Your task to perform on an android device: Is it going to rain today? Image 0: 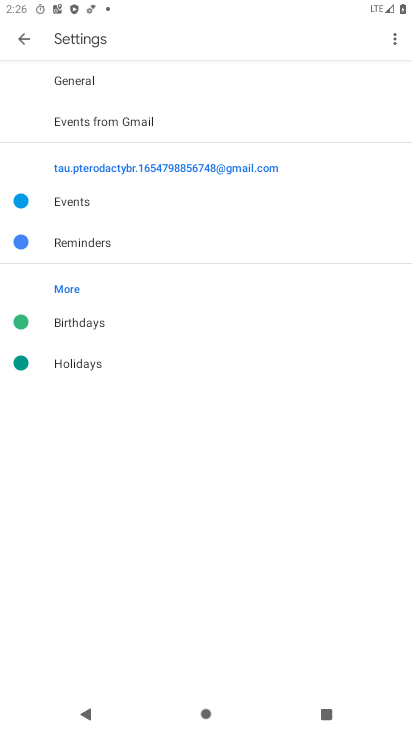
Step 0: press home button
Your task to perform on an android device: Is it going to rain today? Image 1: 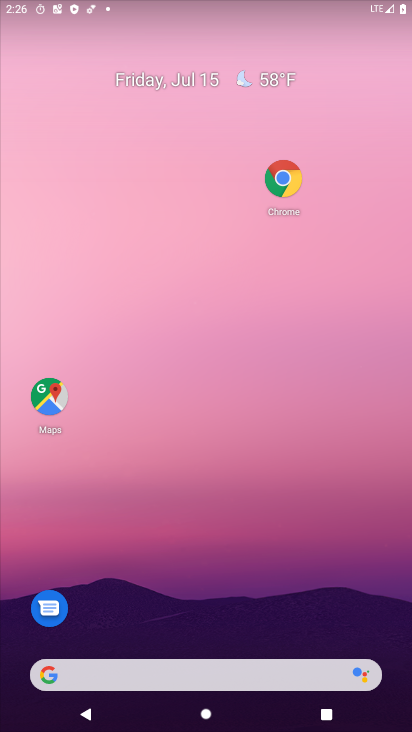
Step 1: drag from (191, 581) to (217, 84)
Your task to perform on an android device: Is it going to rain today? Image 2: 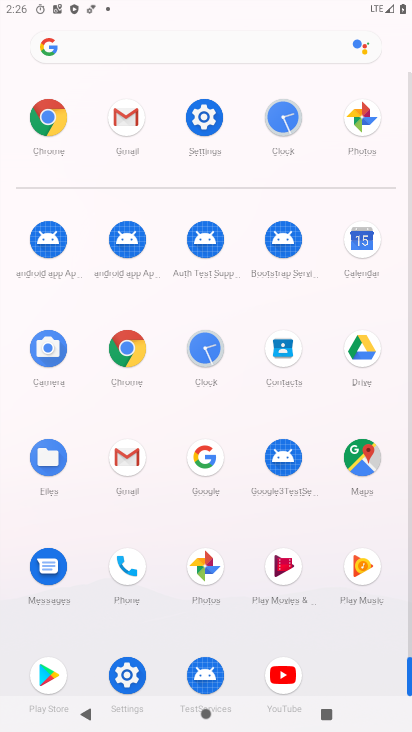
Step 2: click (121, 347)
Your task to perform on an android device: Is it going to rain today? Image 3: 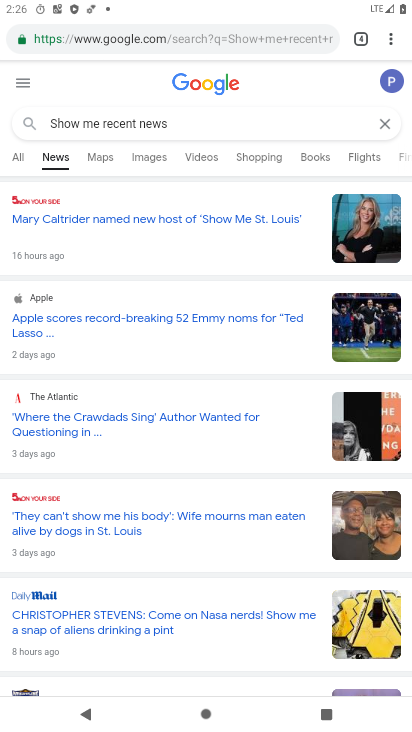
Step 3: click (117, 40)
Your task to perform on an android device: Is it going to rain today? Image 4: 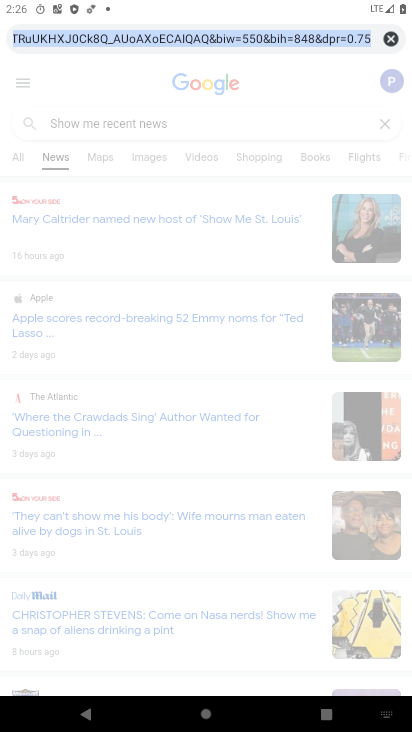
Step 4: type "Is it going to rain today?"
Your task to perform on an android device: Is it going to rain today? Image 5: 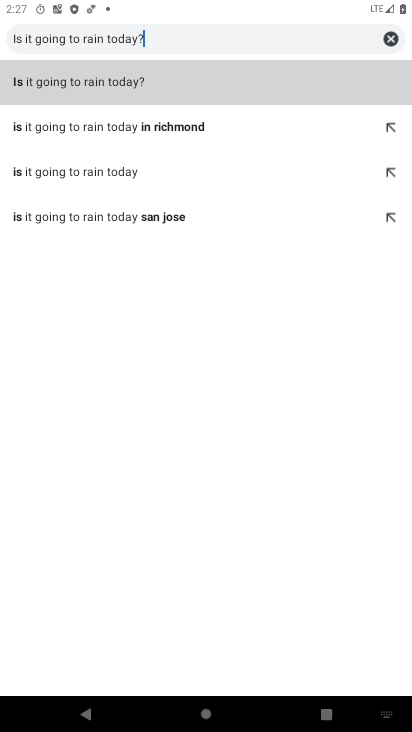
Step 5: type ""
Your task to perform on an android device: Is it going to rain today? Image 6: 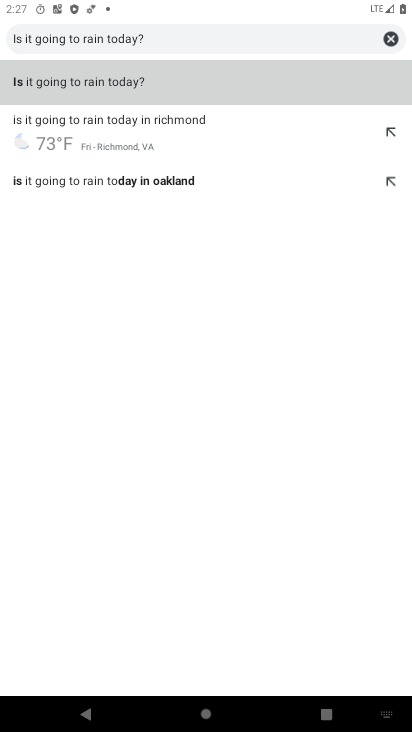
Step 6: click (102, 76)
Your task to perform on an android device: Is it going to rain today? Image 7: 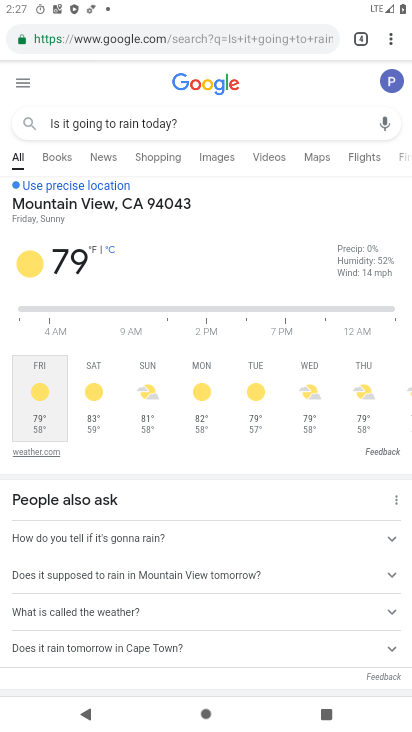
Step 7: task complete